Your task to perform on an android device: What's the weather? Image 0: 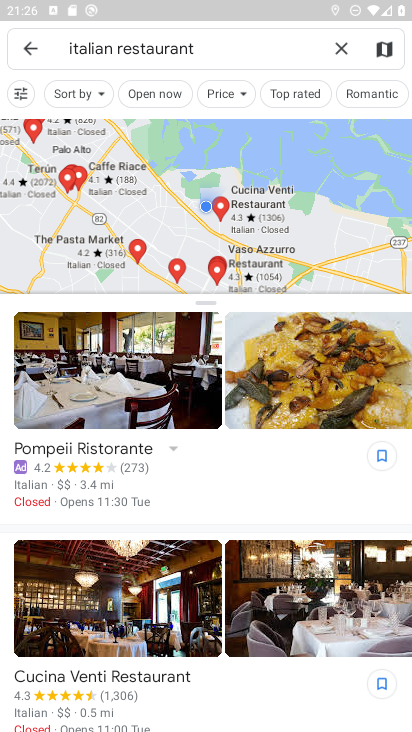
Step 0: press home button
Your task to perform on an android device: What's the weather? Image 1: 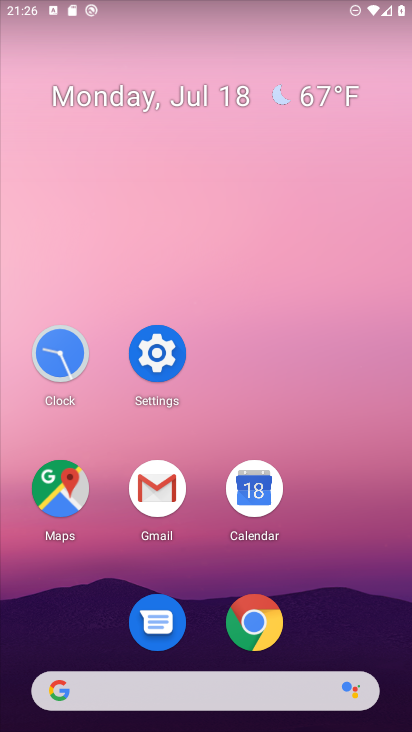
Step 1: task complete